Your task to perform on an android device: open app "Google Translate" Image 0: 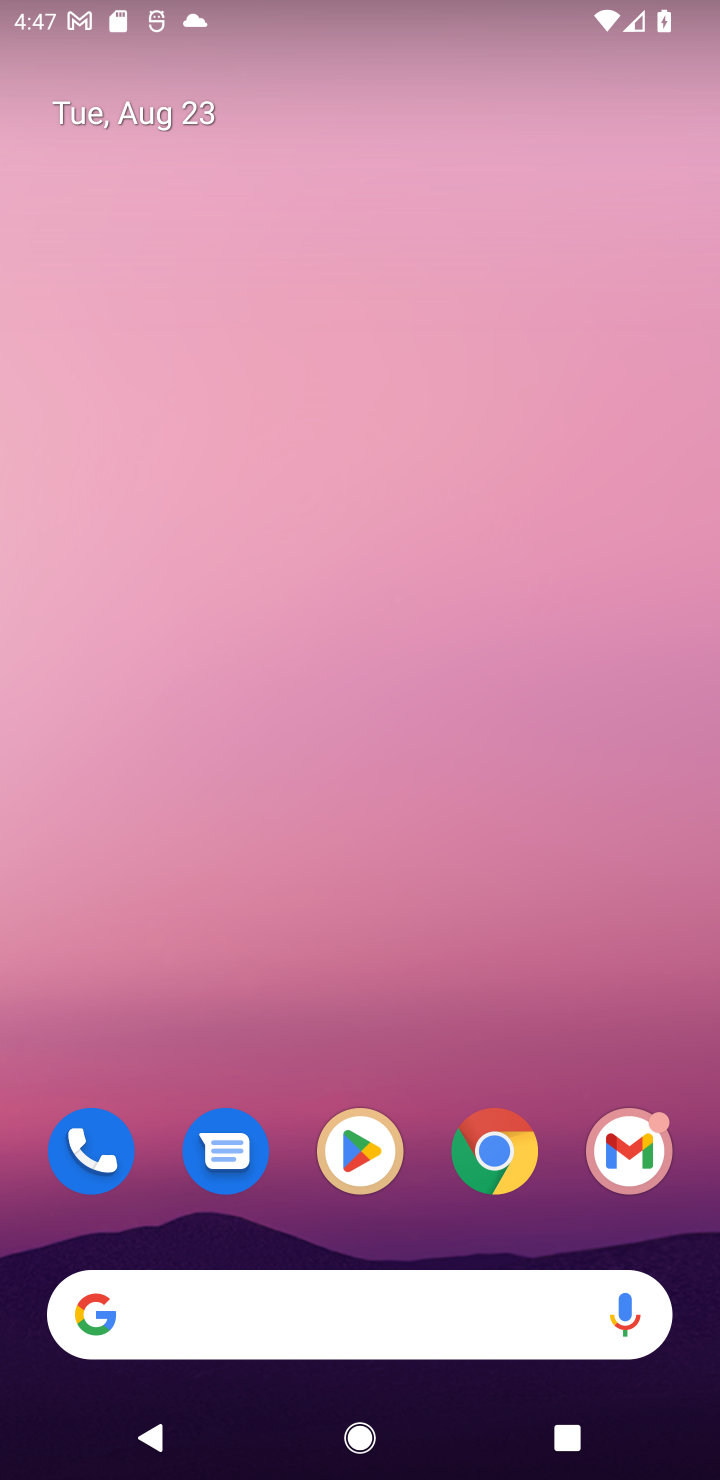
Step 0: press home button
Your task to perform on an android device: open app "Google Translate" Image 1: 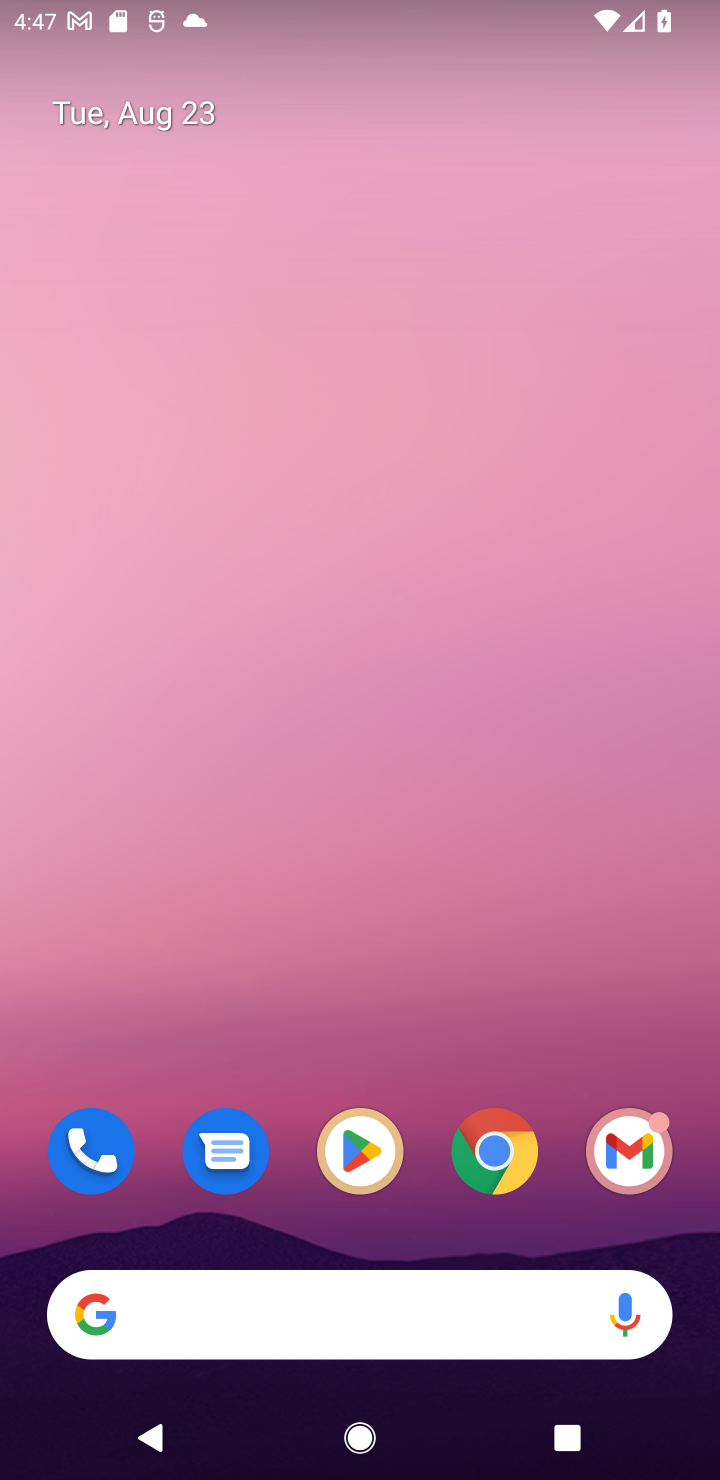
Step 1: click (333, 1146)
Your task to perform on an android device: open app "Google Translate" Image 2: 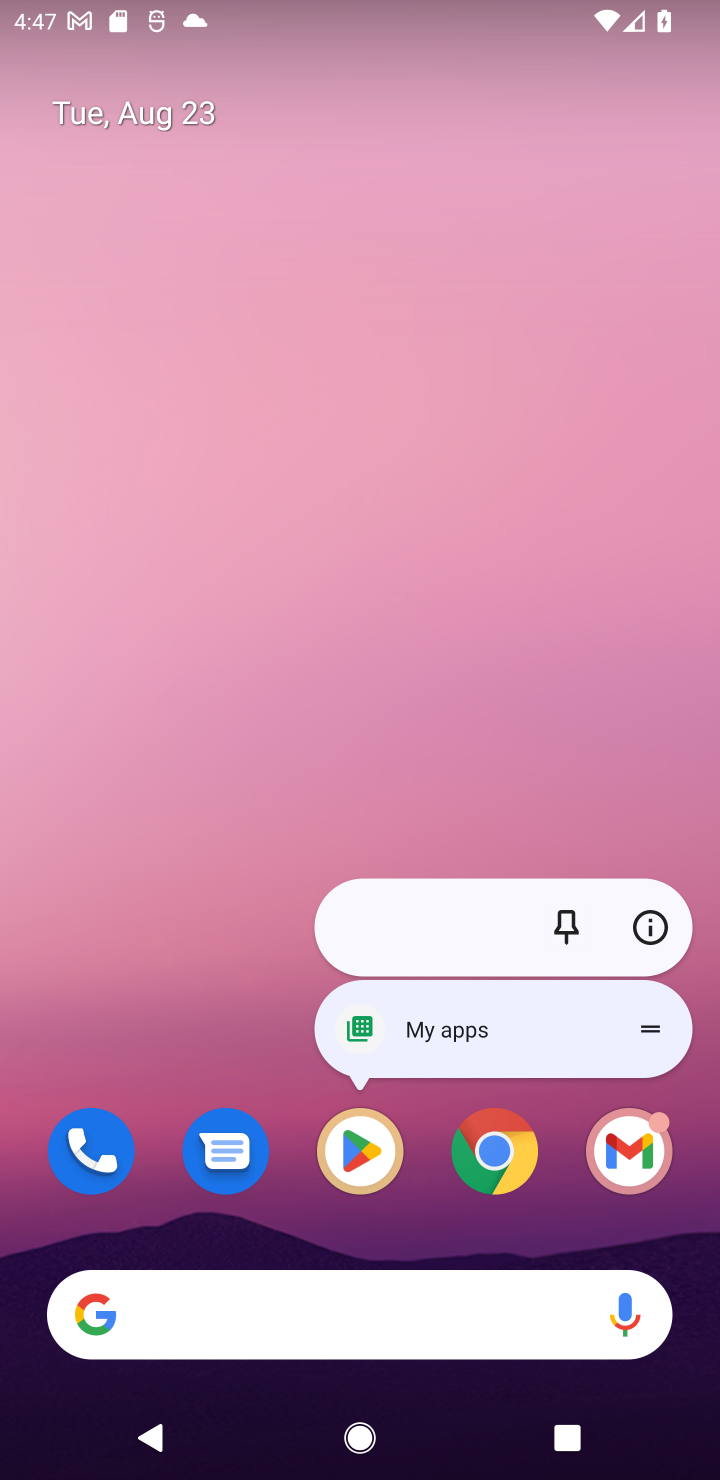
Step 2: click (333, 1156)
Your task to perform on an android device: open app "Google Translate" Image 3: 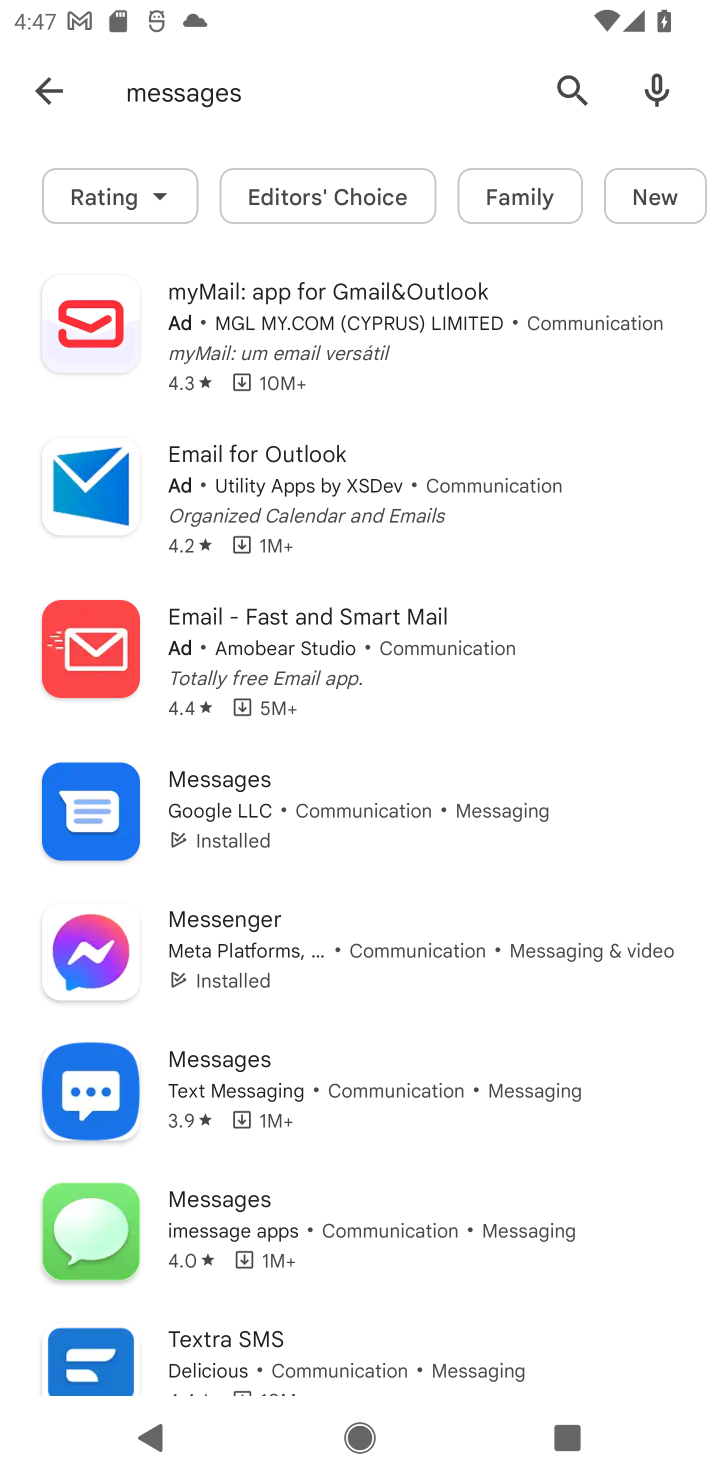
Step 3: click (567, 87)
Your task to perform on an android device: open app "Google Translate" Image 4: 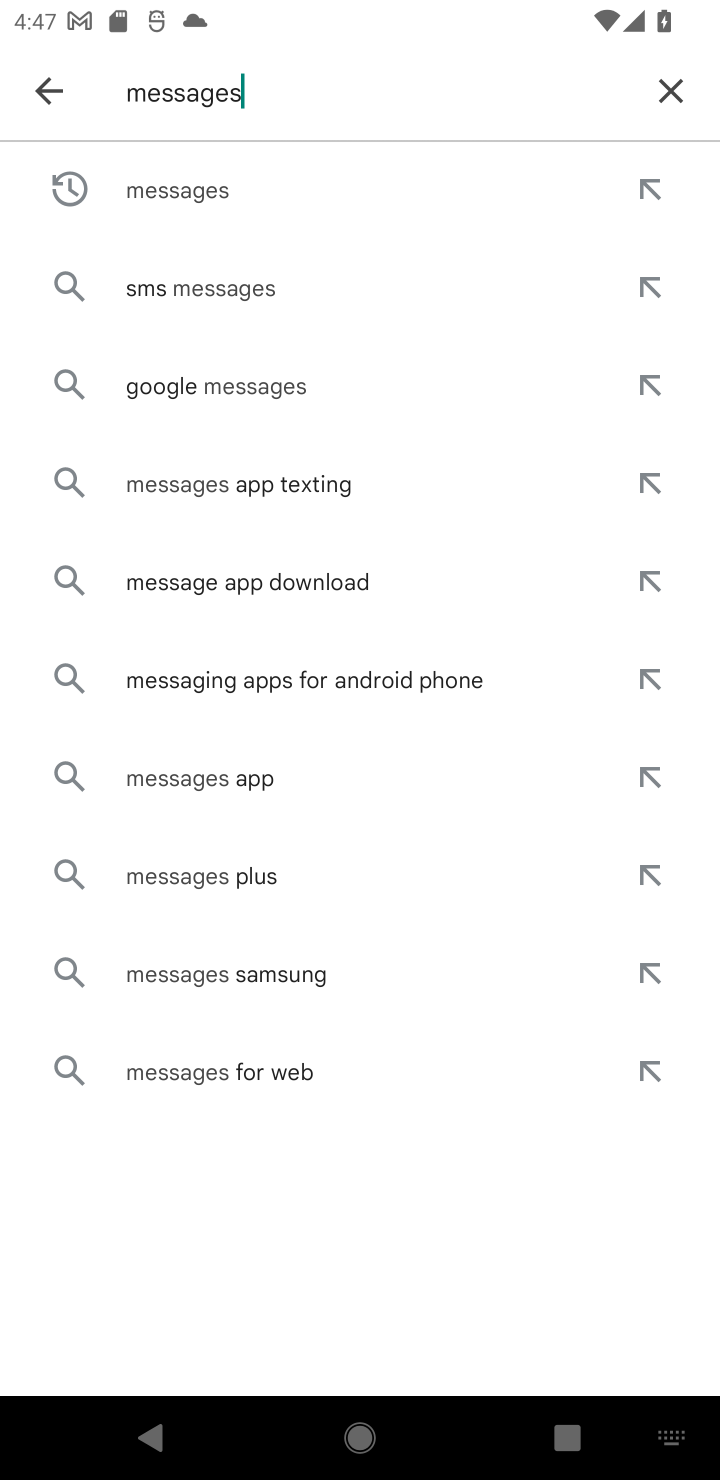
Step 4: click (664, 79)
Your task to perform on an android device: open app "Google Translate" Image 5: 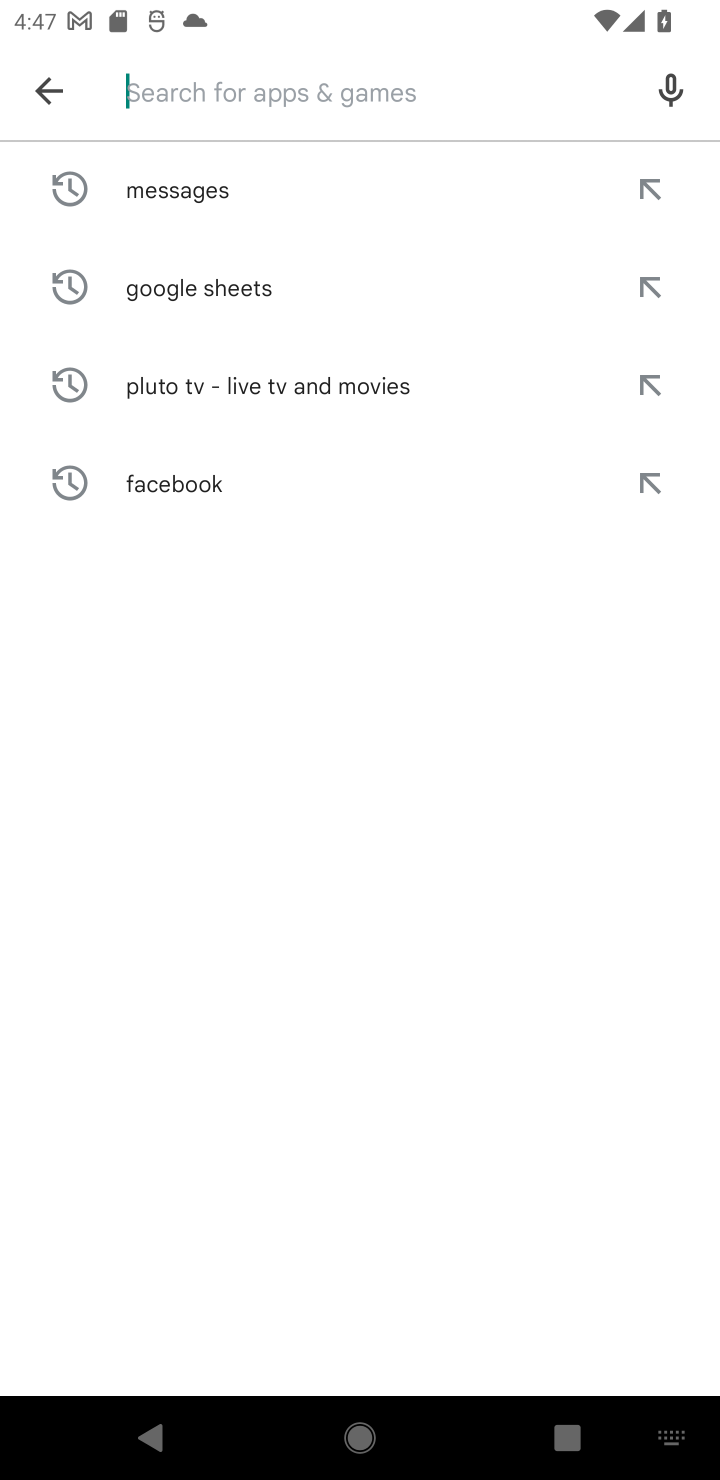
Step 5: type "Google Translate"
Your task to perform on an android device: open app "Google Translate" Image 6: 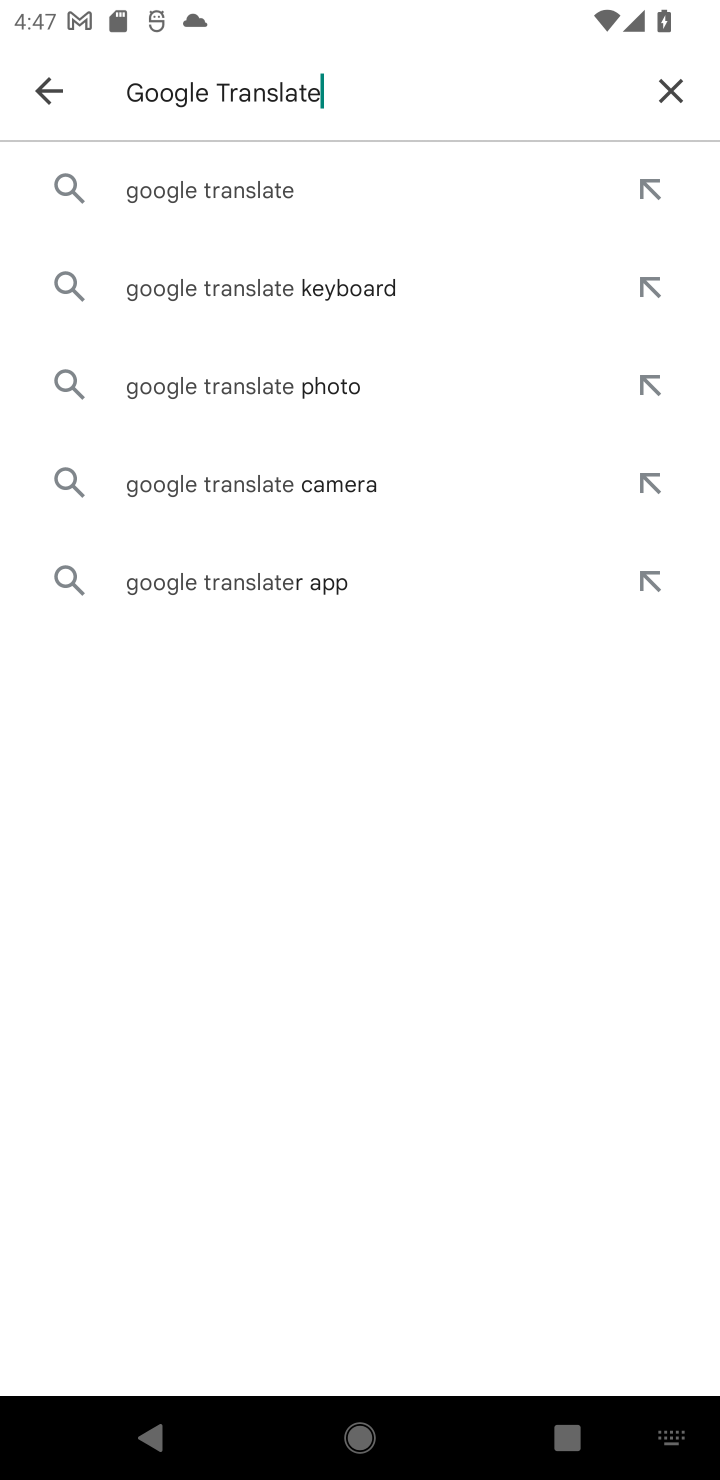
Step 6: click (281, 194)
Your task to perform on an android device: open app "Google Translate" Image 7: 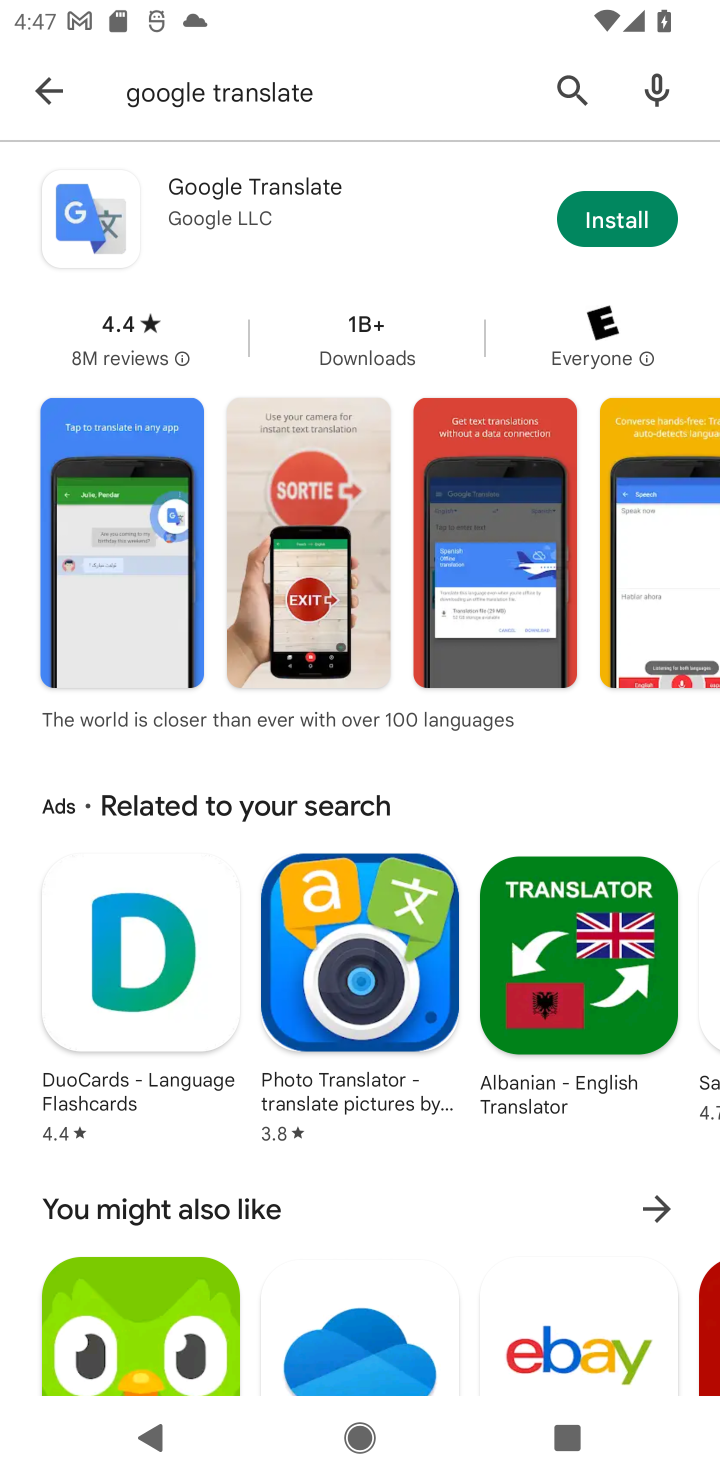
Step 7: task complete